Your task to perform on an android device: Open settings Image 0: 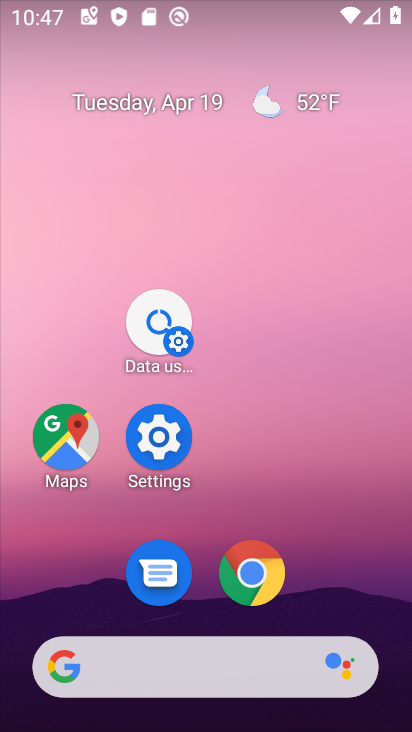
Step 0: click (345, 595)
Your task to perform on an android device: Open settings Image 1: 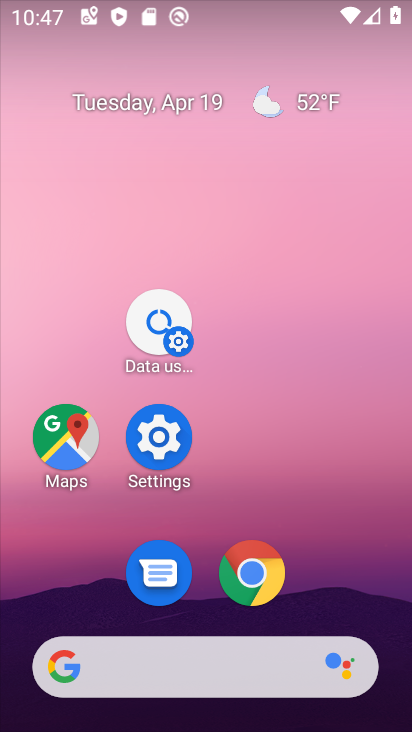
Step 1: click (158, 447)
Your task to perform on an android device: Open settings Image 2: 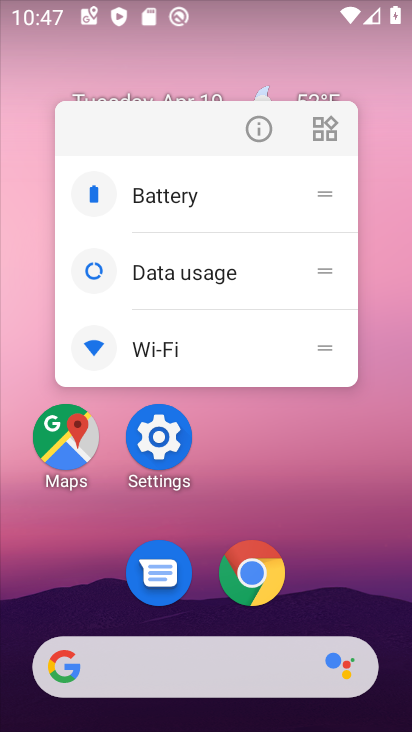
Step 2: click (158, 447)
Your task to perform on an android device: Open settings Image 3: 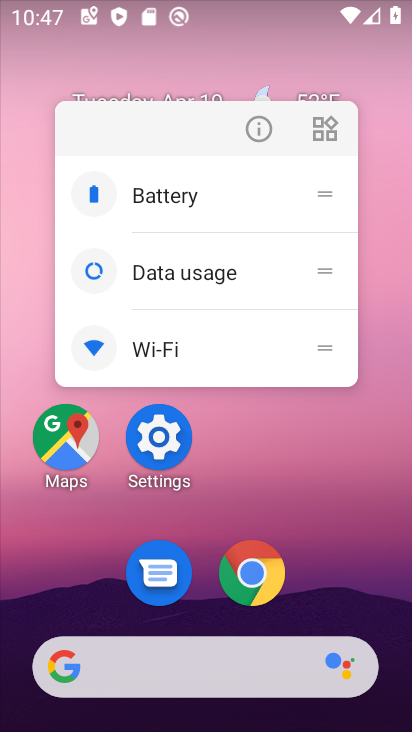
Step 3: click (158, 447)
Your task to perform on an android device: Open settings Image 4: 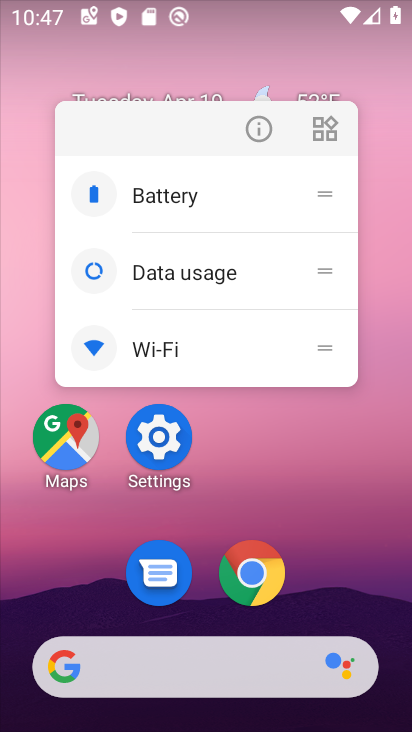
Step 4: click (158, 447)
Your task to perform on an android device: Open settings Image 5: 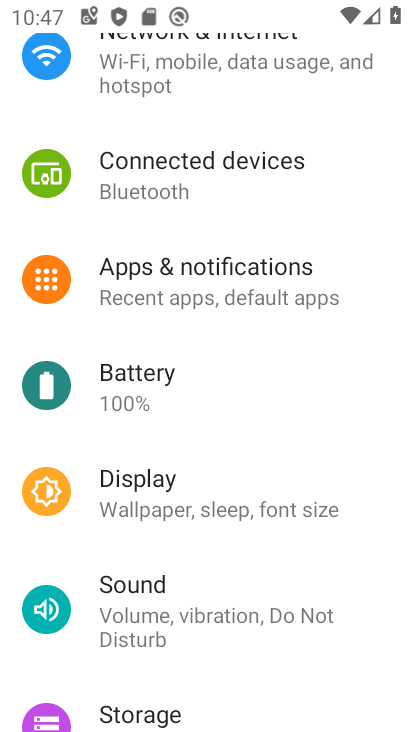
Step 5: task complete